Your task to perform on an android device: Open display settings Image 0: 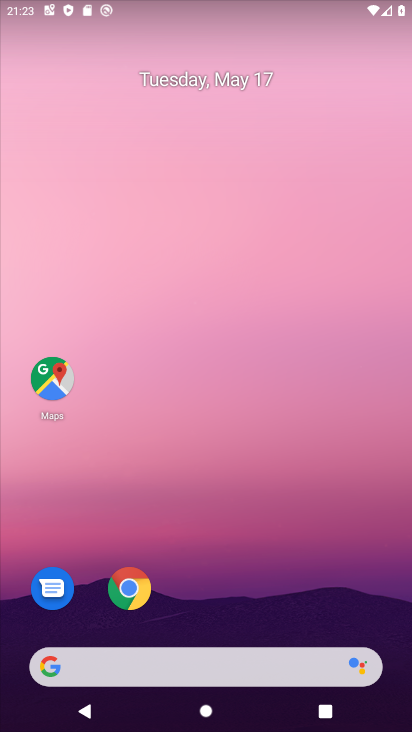
Step 0: click (131, 586)
Your task to perform on an android device: Open display settings Image 1: 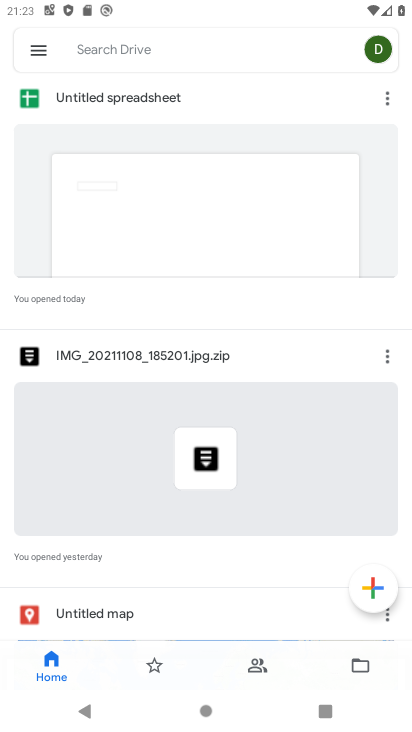
Step 1: press home button
Your task to perform on an android device: Open display settings Image 2: 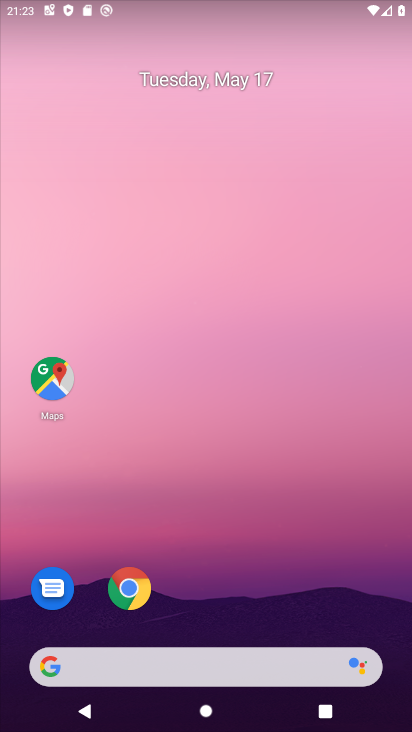
Step 2: drag from (185, 642) to (200, 4)
Your task to perform on an android device: Open display settings Image 3: 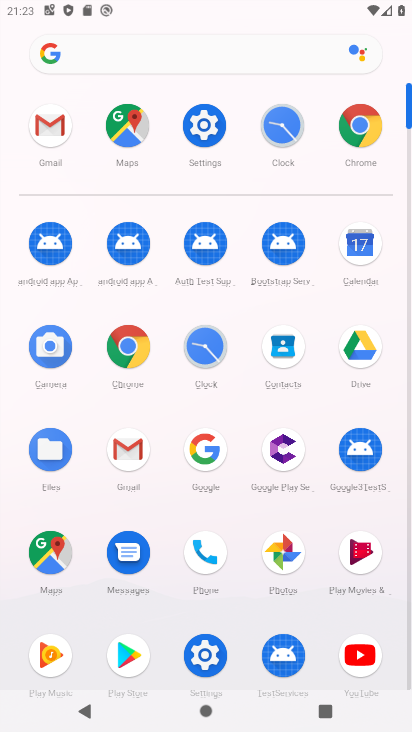
Step 3: click (195, 141)
Your task to perform on an android device: Open display settings Image 4: 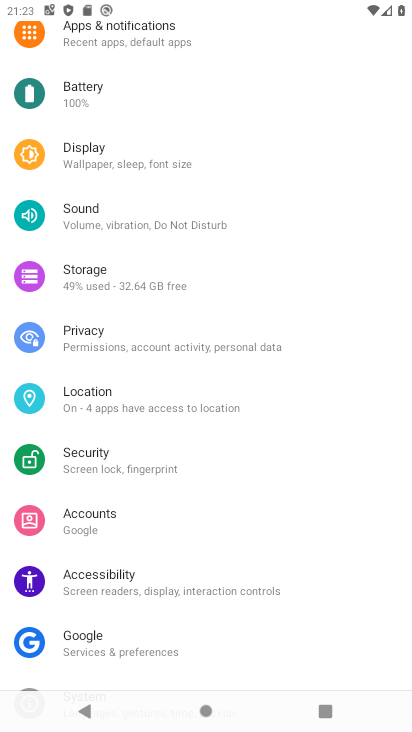
Step 4: drag from (245, 272) to (232, 512)
Your task to perform on an android device: Open display settings Image 5: 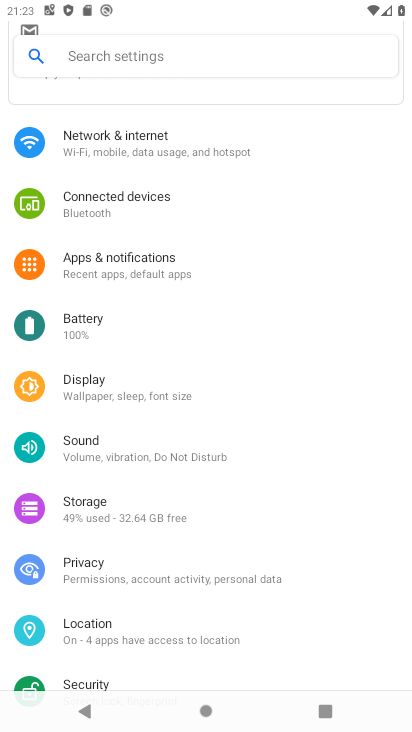
Step 5: click (114, 401)
Your task to perform on an android device: Open display settings Image 6: 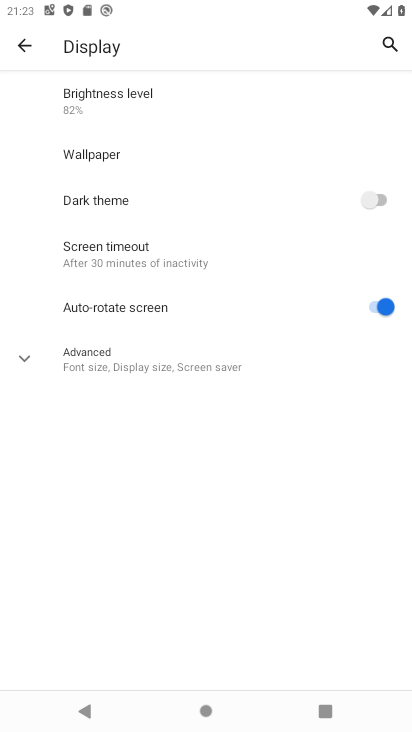
Step 6: click (200, 365)
Your task to perform on an android device: Open display settings Image 7: 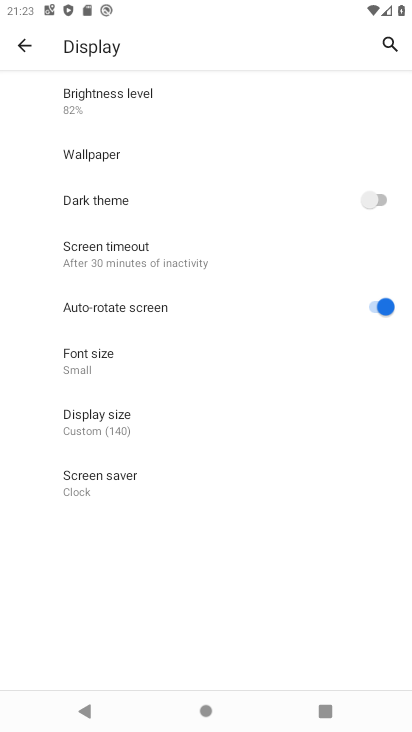
Step 7: task complete